Your task to perform on an android device: Open location settings Image 0: 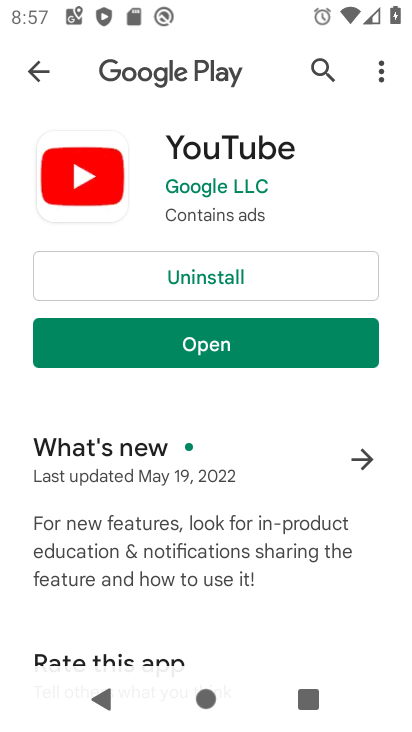
Step 0: press home button
Your task to perform on an android device: Open location settings Image 1: 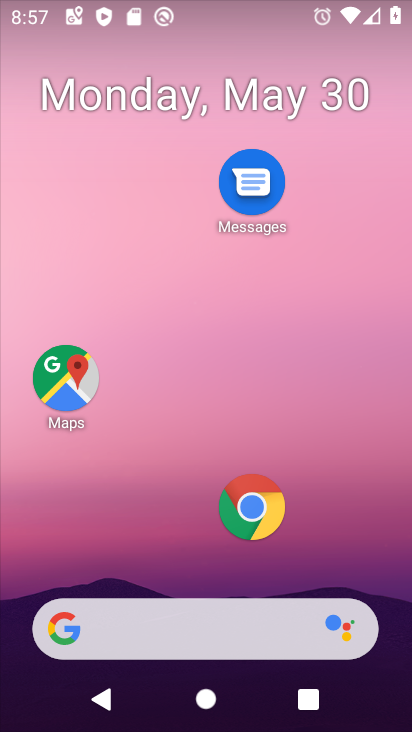
Step 1: drag from (214, 558) to (124, 70)
Your task to perform on an android device: Open location settings Image 2: 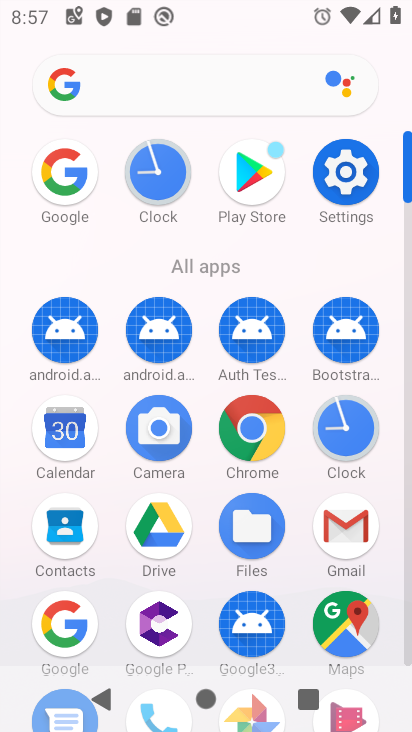
Step 2: click (343, 179)
Your task to perform on an android device: Open location settings Image 3: 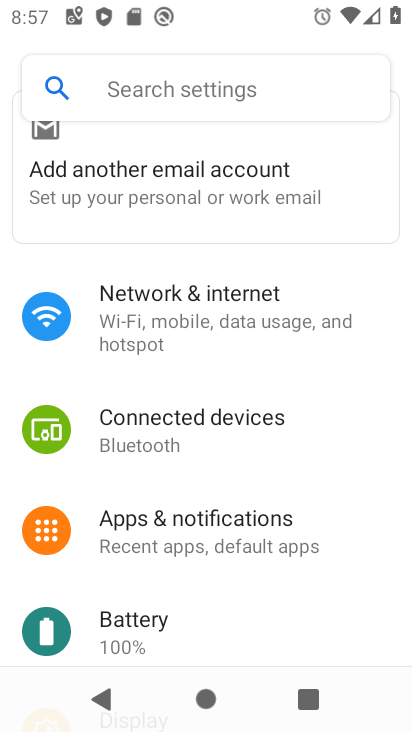
Step 3: drag from (289, 548) to (292, 101)
Your task to perform on an android device: Open location settings Image 4: 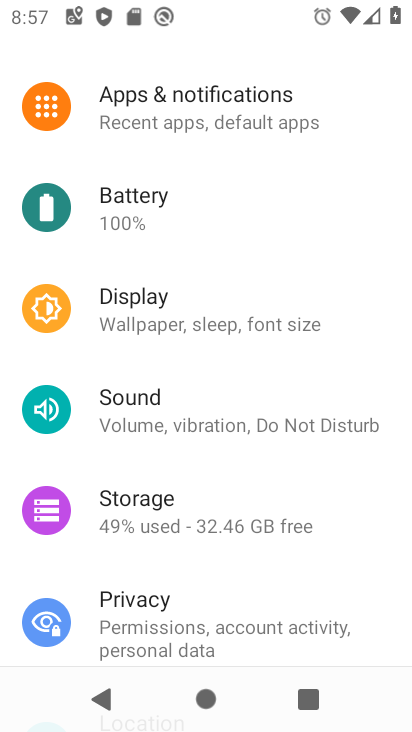
Step 4: drag from (222, 606) to (210, 201)
Your task to perform on an android device: Open location settings Image 5: 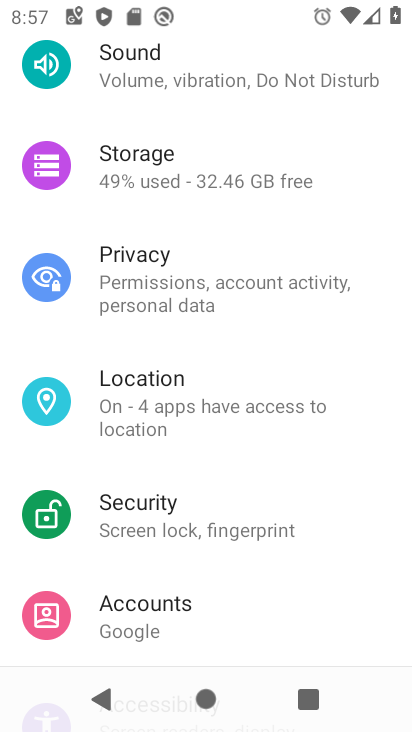
Step 5: click (206, 403)
Your task to perform on an android device: Open location settings Image 6: 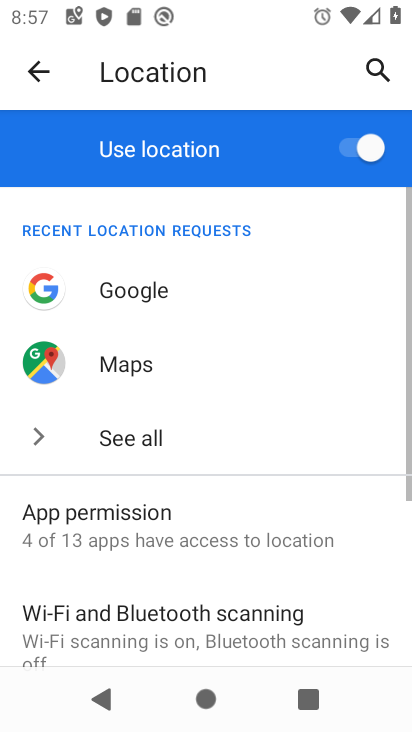
Step 6: task complete